Your task to perform on an android device: Open ESPN.com Image 0: 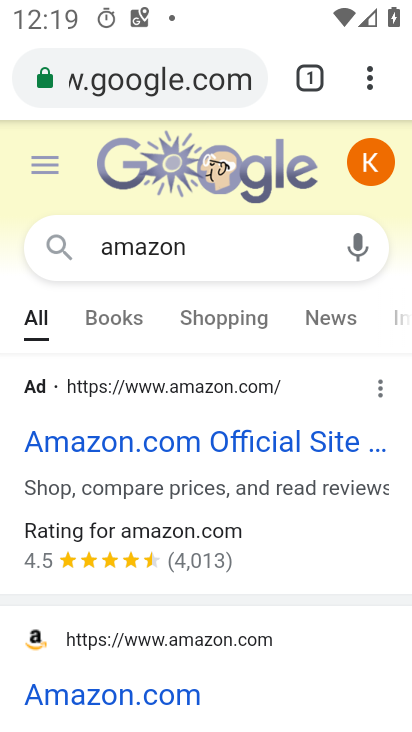
Step 0: press home button
Your task to perform on an android device: Open ESPN.com Image 1: 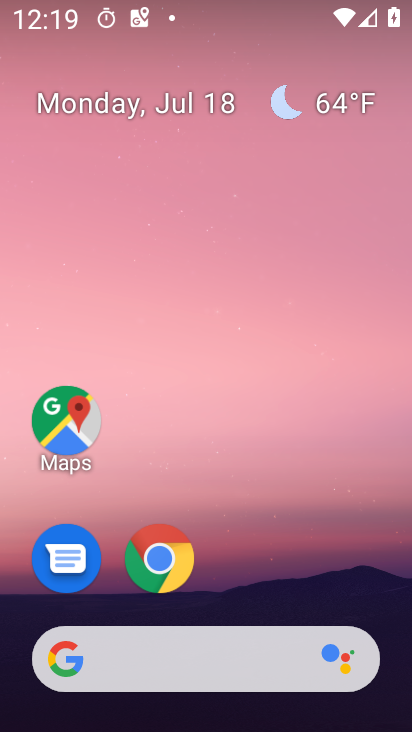
Step 1: drag from (367, 535) to (405, 164)
Your task to perform on an android device: Open ESPN.com Image 2: 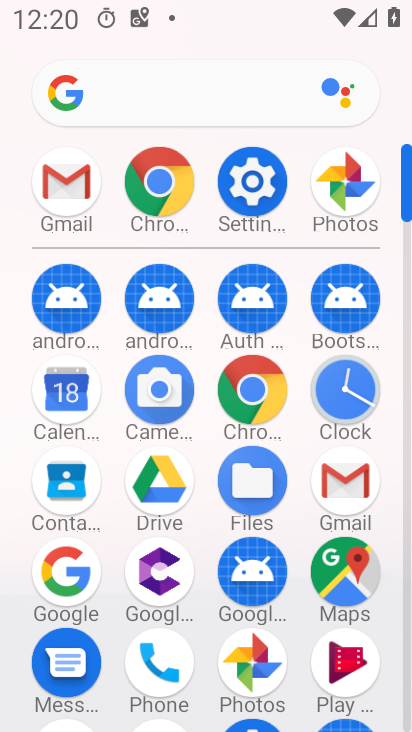
Step 2: click (258, 386)
Your task to perform on an android device: Open ESPN.com Image 3: 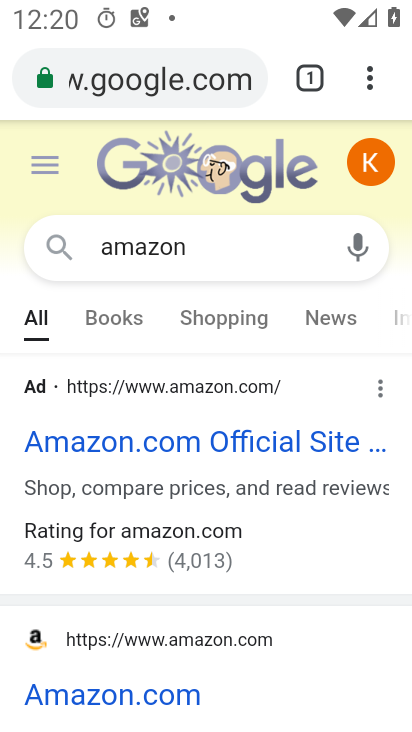
Step 3: click (234, 61)
Your task to perform on an android device: Open ESPN.com Image 4: 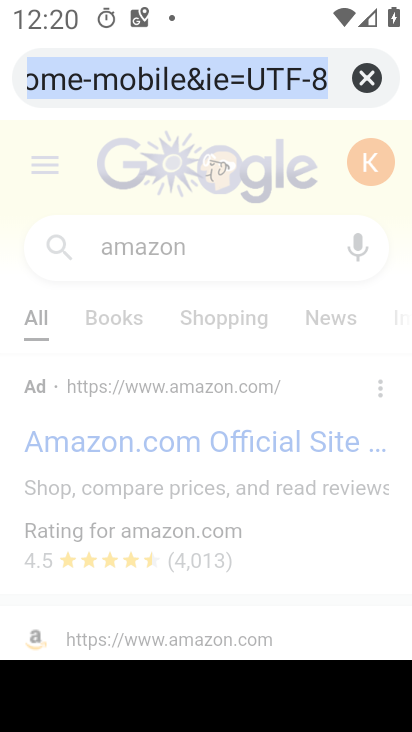
Step 4: type "espn.com"
Your task to perform on an android device: Open ESPN.com Image 5: 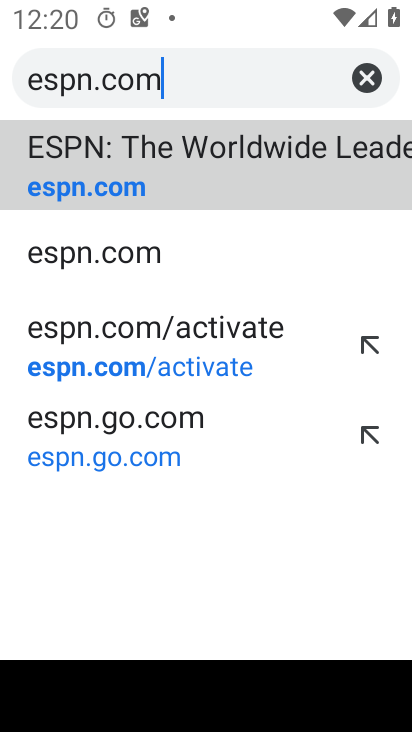
Step 5: click (244, 185)
Your task to perform on an android device: Open ESPN.com Image 6: 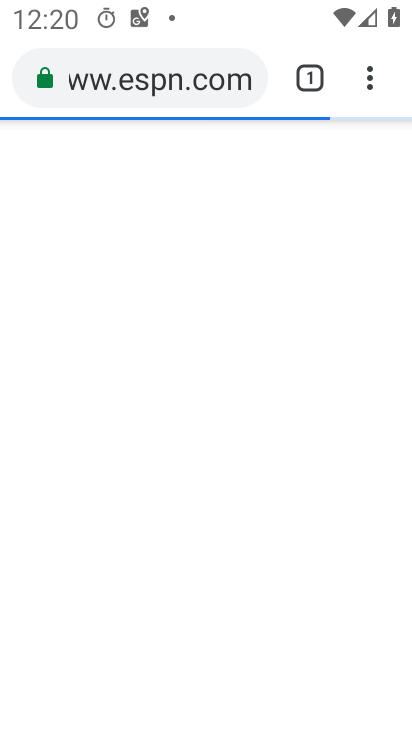
Step 6: task complete